Your task to perform on an android device: manage bookmarks in the chrome app Image 0: 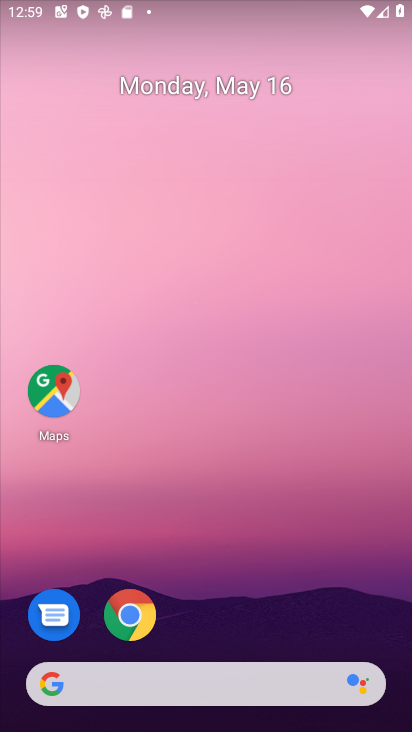
Step 0: drag from (289, 542) to (327, 12)
Your task to perform on an android device: manage bookmarks in the chrome app Image 1: 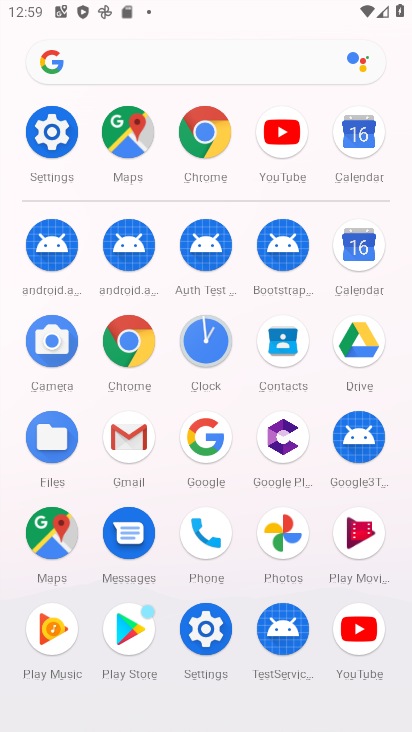
Step 1: click (115, 345)
Your task to perform on an android device: manage bookmarks in the chrome app Image 2: 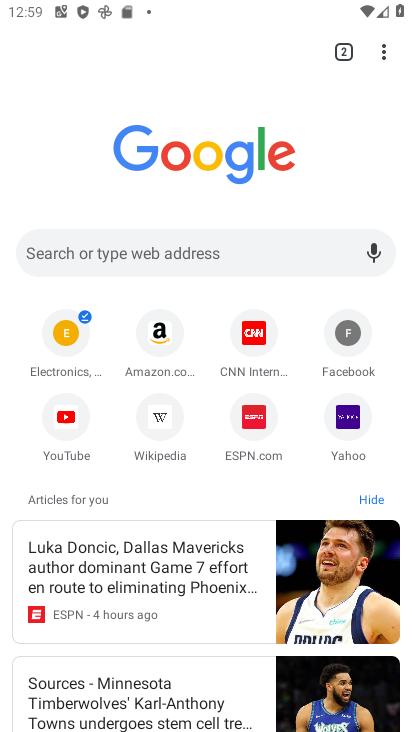
Step 2: click (382, 59)
Your task to perform on an android device: manage bookmarks in the chrome app Image 3: 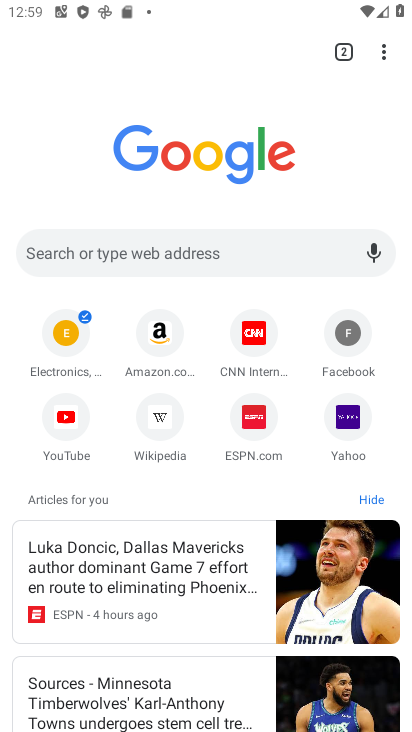
Step 3: task complete